Your task to perform on an android device: Open the Play Movies app and select the watchlist tab. Image 0: 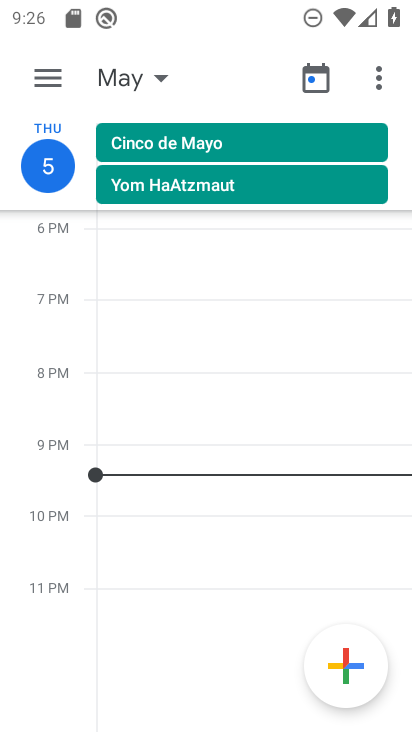
Step 0: press home button
Your task to perform on an android device: Open the Play Movies app and select the watchlist tab. Image 1: 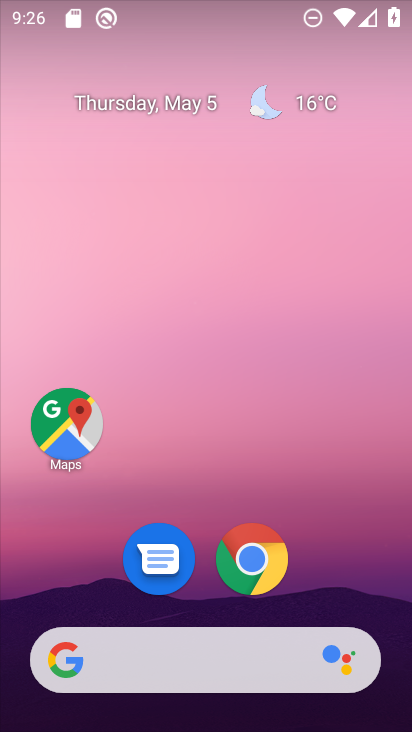
Step 1: drag from (356, 582) to (373, 0)
Your task to perform on an android device: Open the Play Movies app and select the watchlist tab. Image 2: 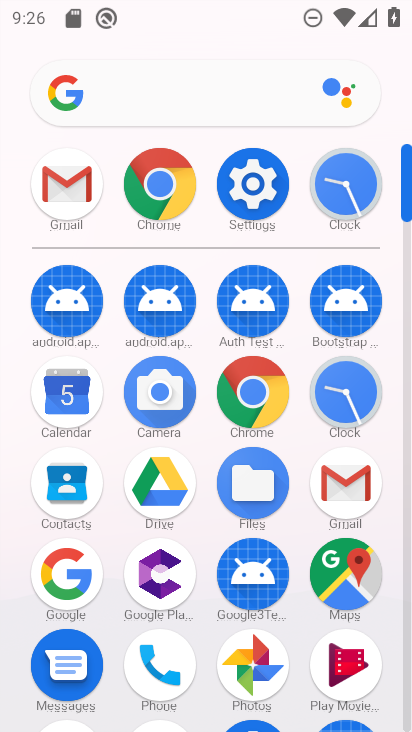
Step 2: click (342, 669)
Your task to perform on an android device: Open the Play Movies app and select the watchlist tab. Image 3: 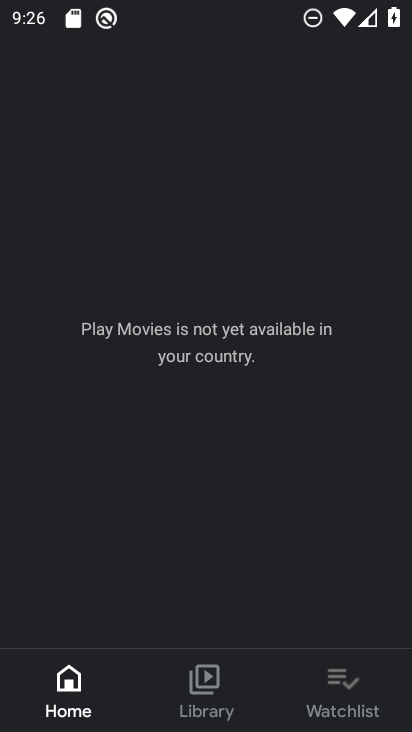
Step 3: click (344, 687)
Your task to perform on an android device: Open the Play Movies app and select the watchlist tab. Image 4: 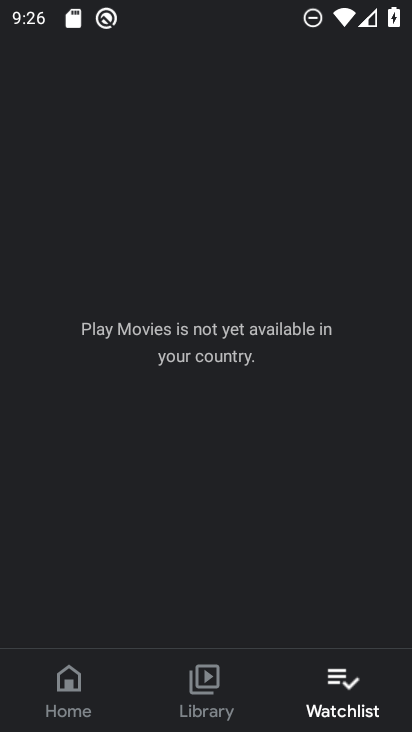
Step 4: task complete